Your task to perform on an android device: When is my next meeting? Image 0: 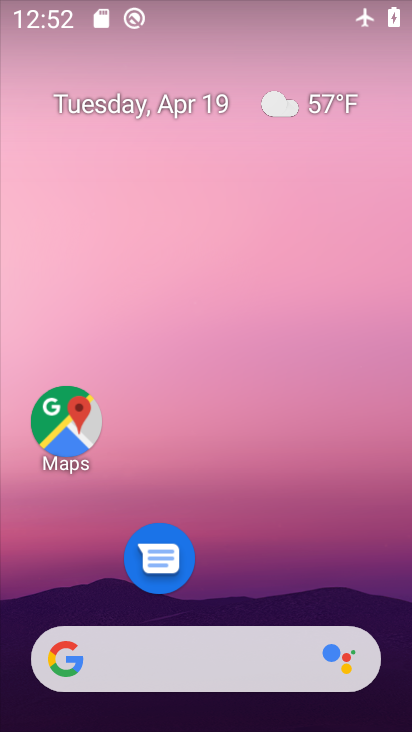
Step 0: drag from (260, 494) to (247, 131)
Your task to perform on an android device: When is my next meeting? Image 1: 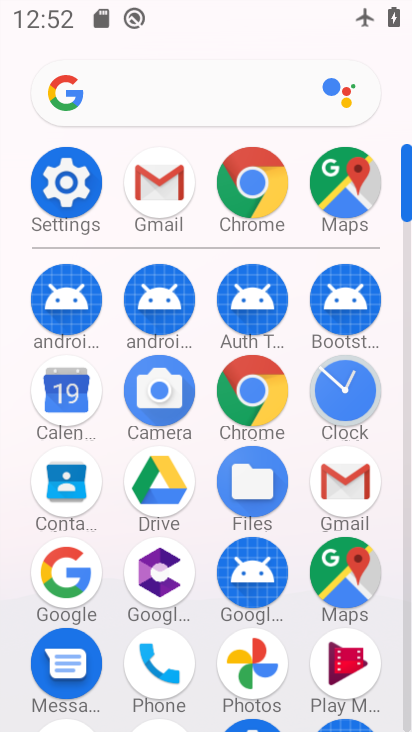
Step 1: click (72, 397)
Your task to perform on an android device: When is my next meeting? Image 2: 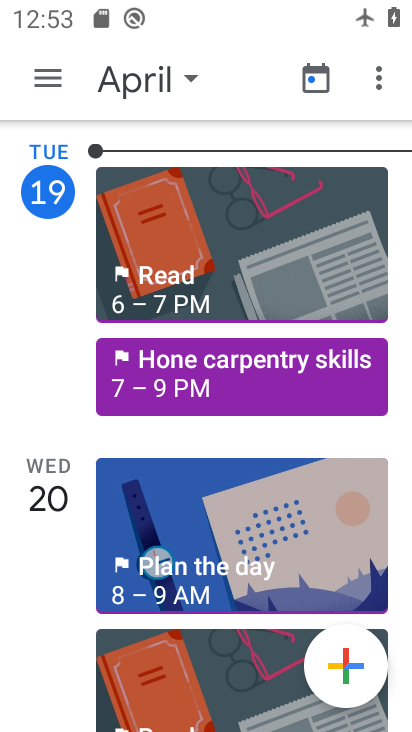
Step 2: task complete